Your task to perform on an android device: Do I have any events this weekend? Image 0: 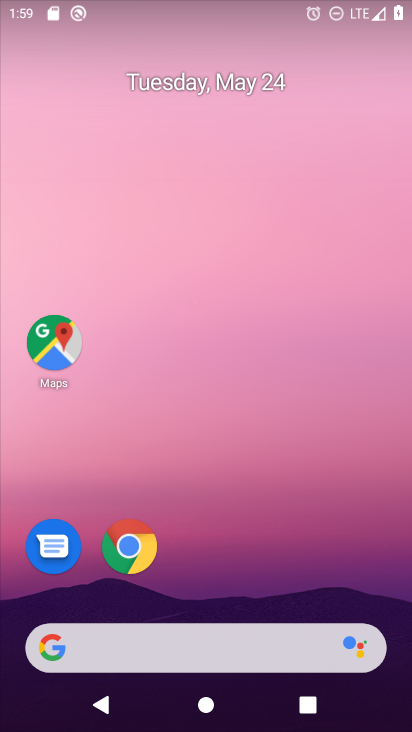
Step 0: drag from (195, 673) to (251, 53)
Your task to perform on an android device: Do I have any events this weekend? Image 1: 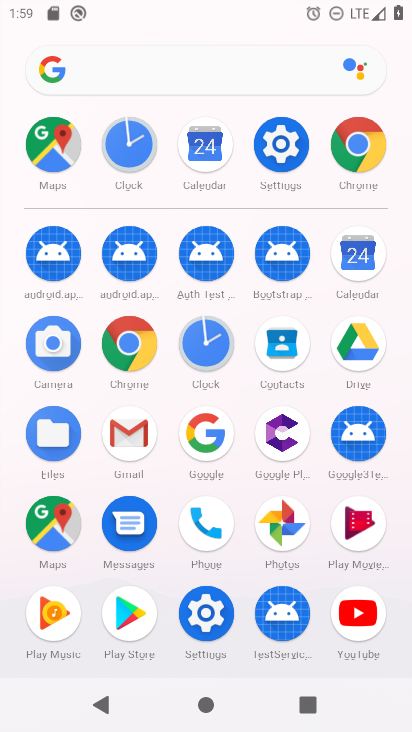
Step 1: click (334, 254)
Your task to perform on an android device: Do I have any events this weekend? Image 2: 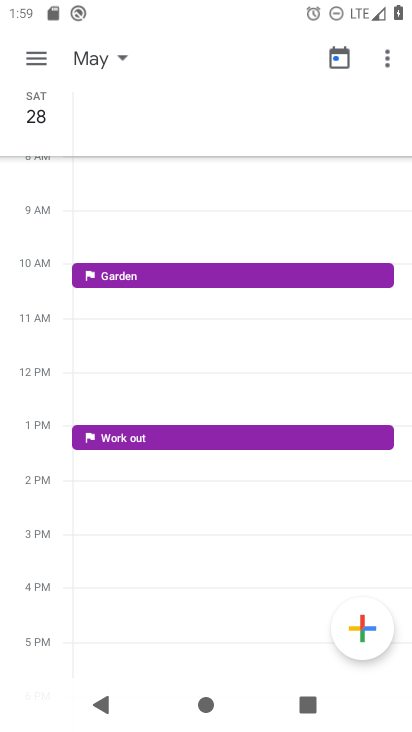
Step 2: click (121, 60)
Your task to perform on an android device: Do I have any events this weekend? Image 3: 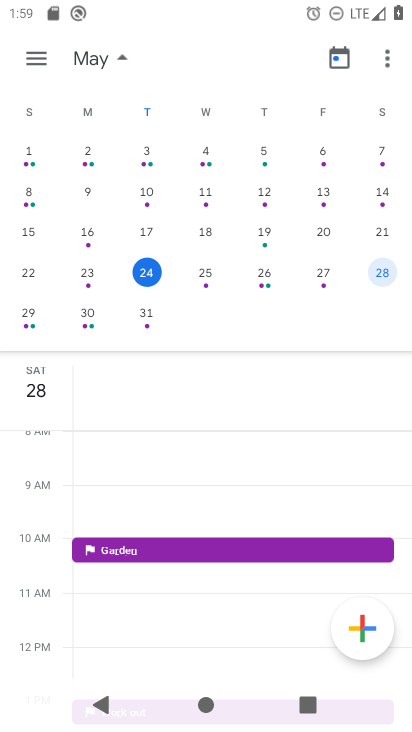
Step 3: click (381, 276)
Your task to perform on an android device: Do I have any events this weekend? Image 4: 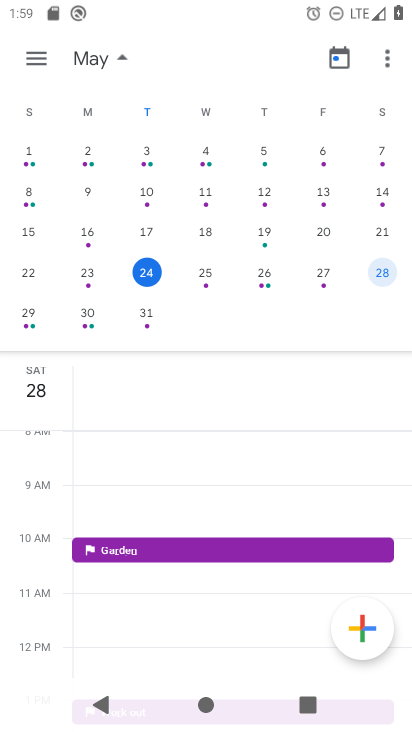
Step 4: task complete